Your task to perform on an android device: Open Chrome and go to settings Image 0: 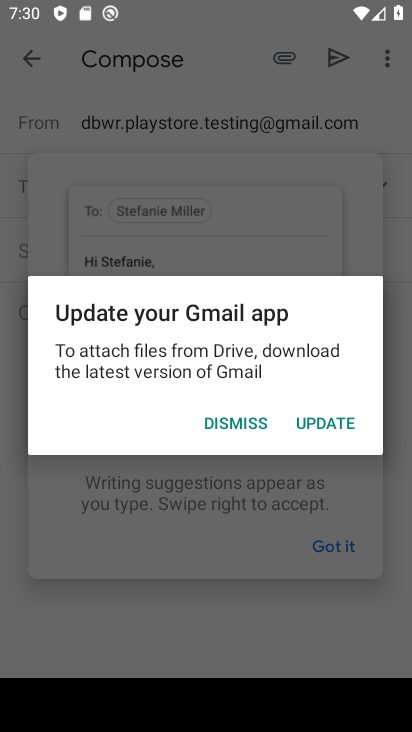
Step 0: press home button
Your task to perform on an android device: Open Chrome and go to settings Image 1: 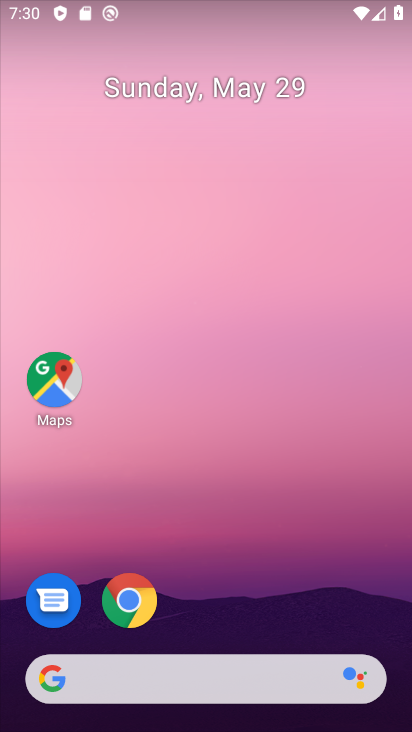
Step 1: click (134, 606)
Your task to perform on an android device: Open Chrome and go to settings Image 2: 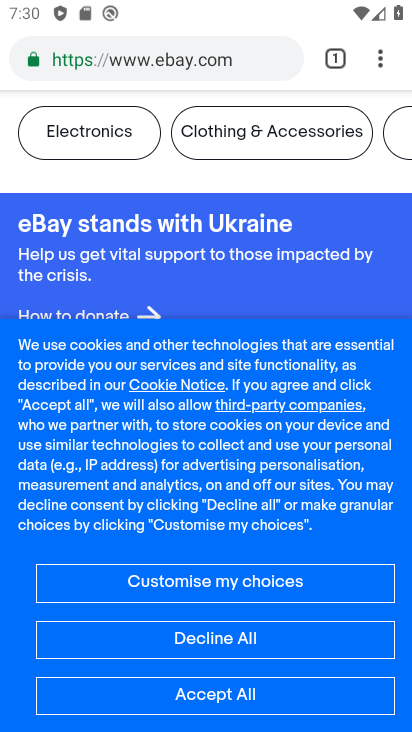
Step 2: click (387, 47)
Your task to perform on an android device: Open Chrome and go to settings Image 3: 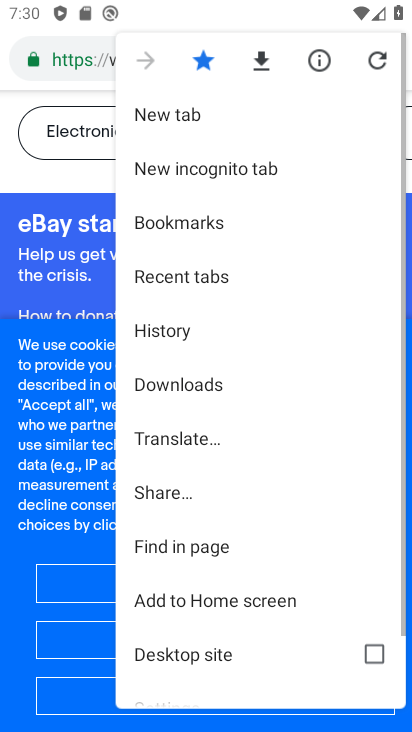
Step 3: drag from (200, 654) to (223, 403)
Your task to perform on an android device: Open Chrome and go to settings Image 4: 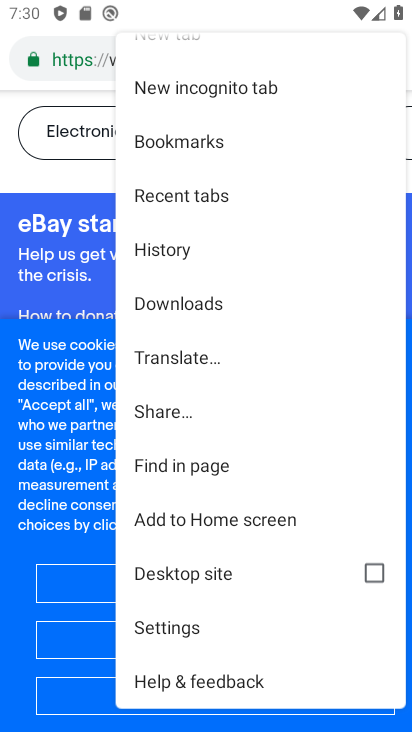
Step 4: click (170, 627)
Your task to perform on an android device: Open Chrome and go to settings Image 5: 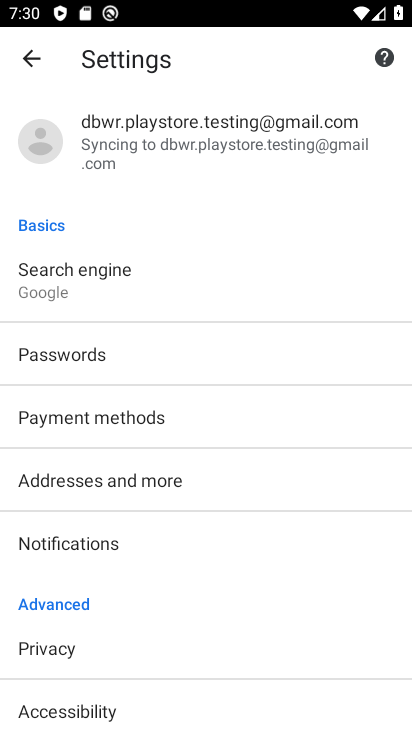
Step 5: task complete